Your task to perform on an android device: turn on notifications settings in the gmail app Image 0: 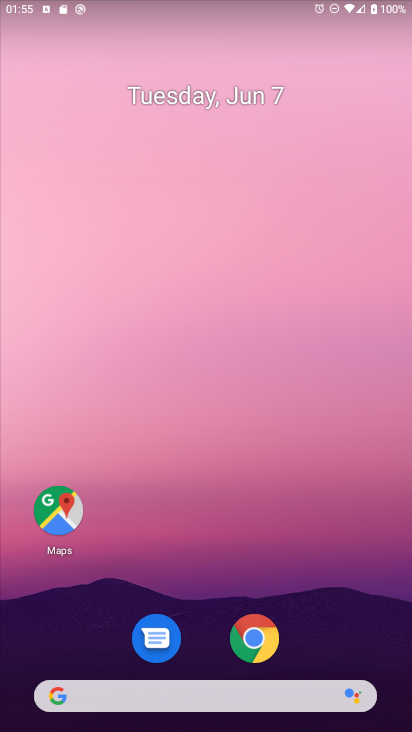
Step 0: drag from (259, 650) to (181, 73)
Your task to perform on an android device: turn on notifications settings in the gmail app Image 1: 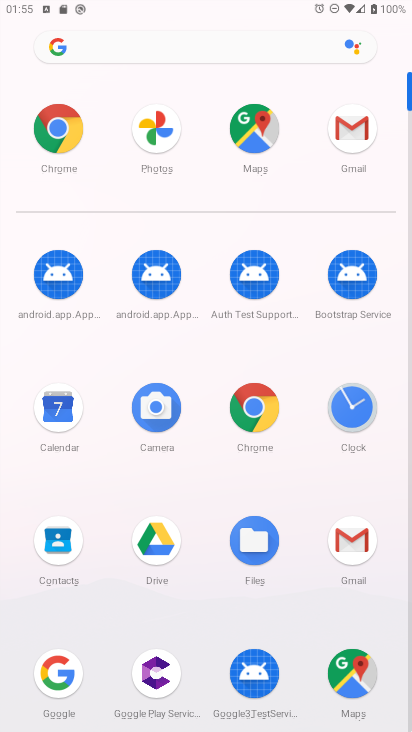
Step 1: click (356, 123)
Your task to perform on an android device: turn on notifications settings in the gmail app Image 2: 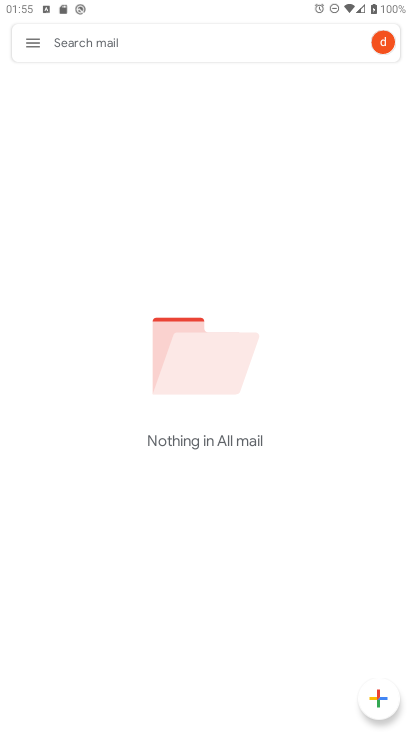
Step 2: click (21, 42)
Your task to perform on an android device: turn on notifications settings in the gmail app Image 3: 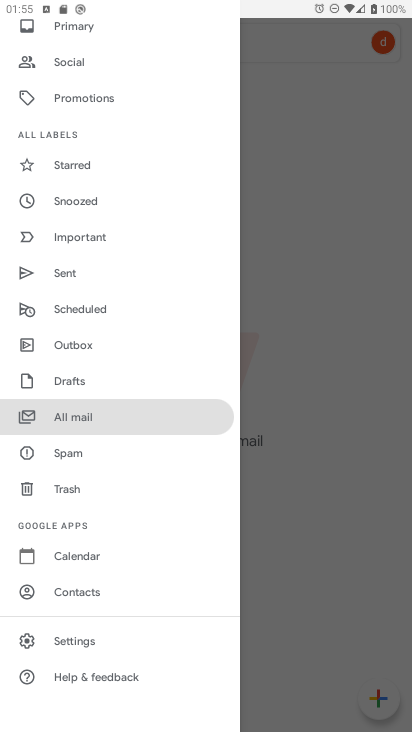
Step 3: click (72, 635)
Your task to perform on an android device: turn on notifications settings in the gmail app Image 4: 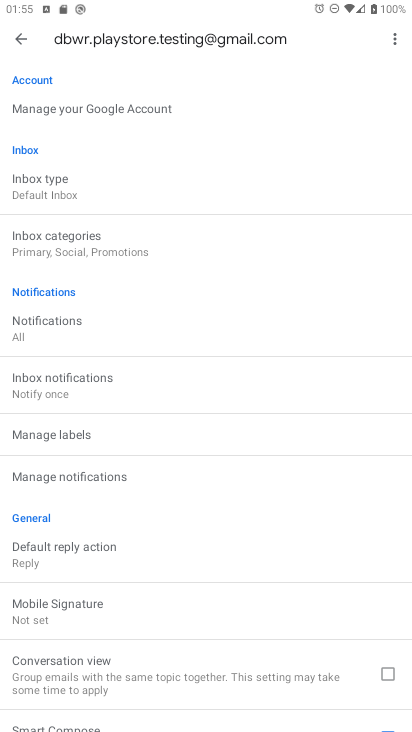
Step 4: click (64, 317)
Your task to perform on an android device: turn on notifications settings in the gmail app Image 5: 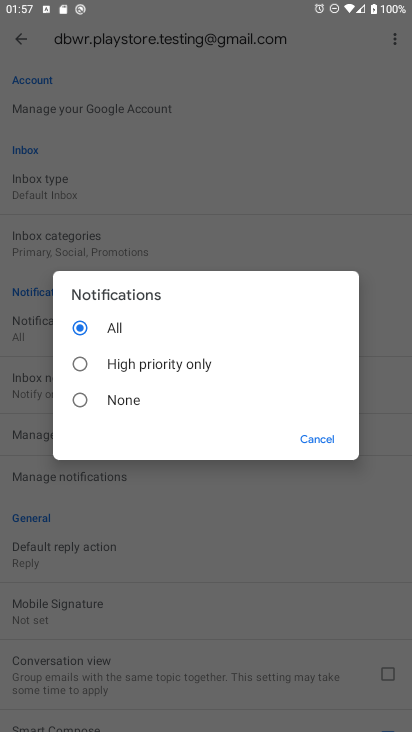
Step 5: task complete